Your task to perform on an android device: change the clock style Image 0: 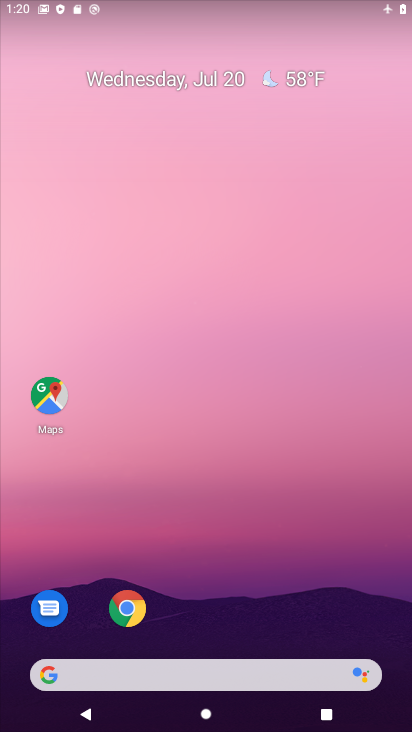
Step 0: drag from (234, 686) to (175, 230)
Your task to perform on an android device: change the clock style Image 1: 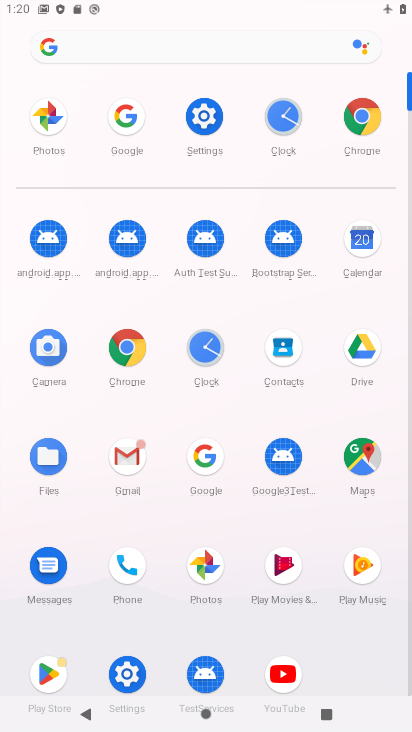
Step 1: click (204, 344)
Your task to perform on an android device: change the clock style Image 2: 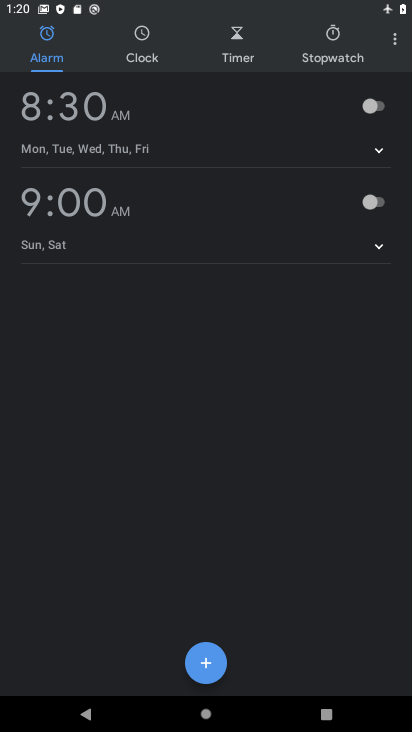
Step 2: click (394, 47)
Your task to perform on an android device: change the clock style Image 3: 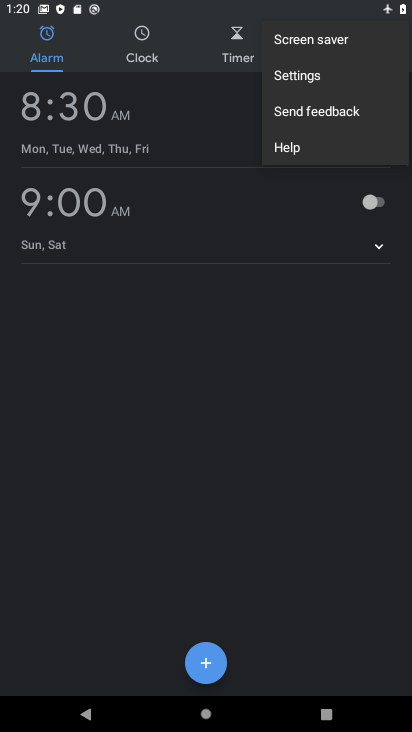
Step 3: click (297, 74)
Your task to perform on an android device: change the clock style Image 4: 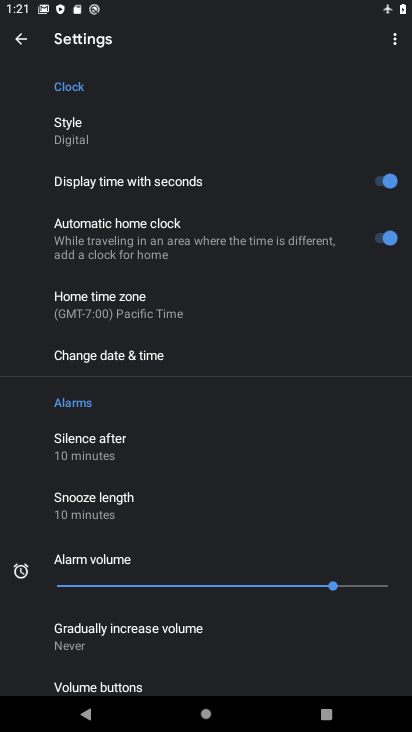
Step 4: click (60, 137)
Your task to perform on an android device: change the clock style Image 5: 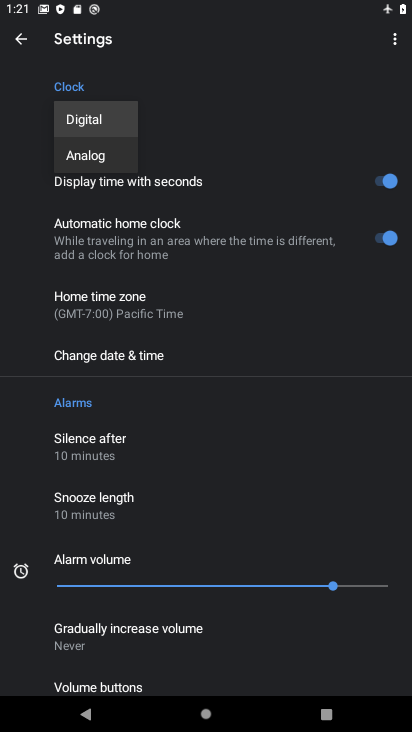
Step 5: click (80, 154)
Your task to perform on an android device: change the clock style Image 6: 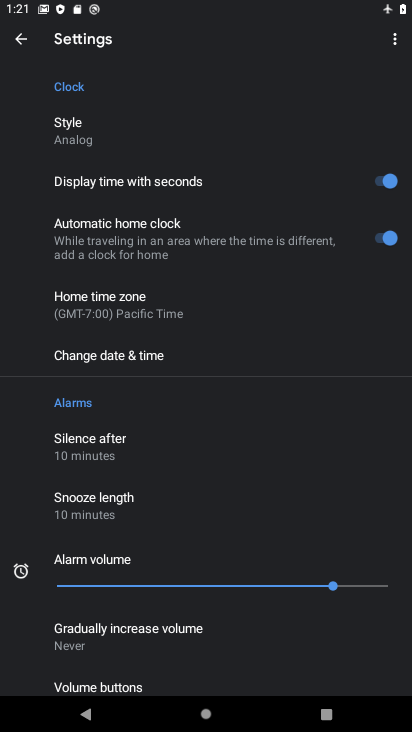
Step 6: task complete